Your task to perform on an android device: check out phone information Image 0: 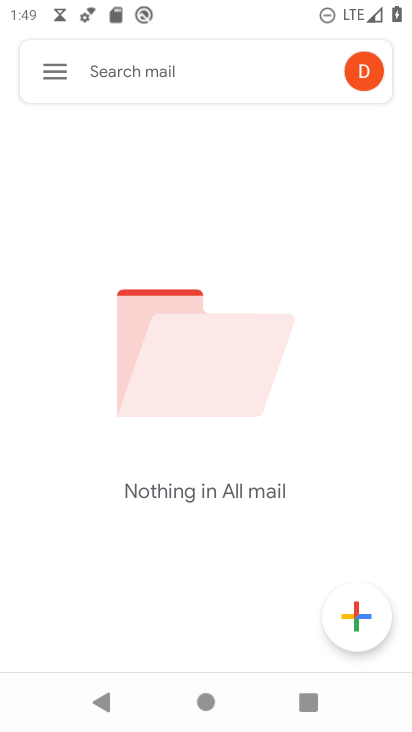
Step 0: press home button
Your task to perform on an android device: check out phone information Image 1: 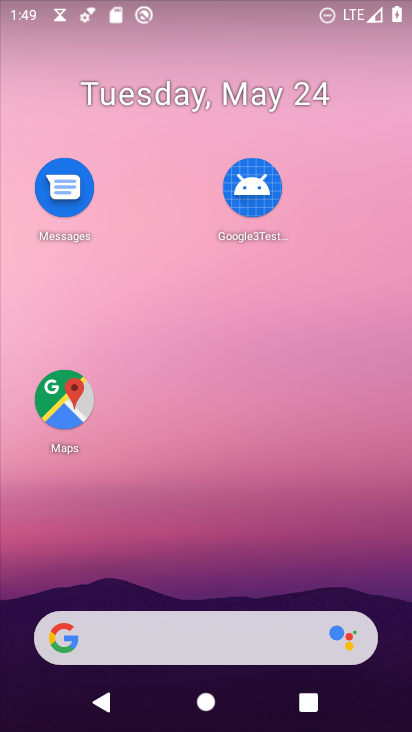
Step 1: drag from (179, 579) to (152, 1)
Your task to perform on an android device: check out phone information Image 2: 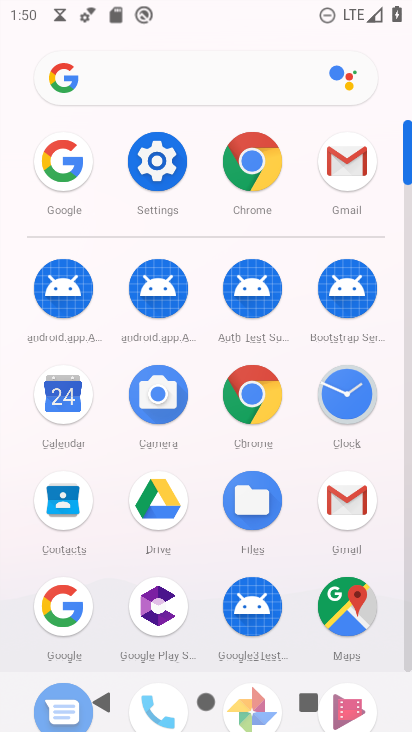
Step 2: click (159, 154)
Your task to perform on an android device: check out phone information Image 3: 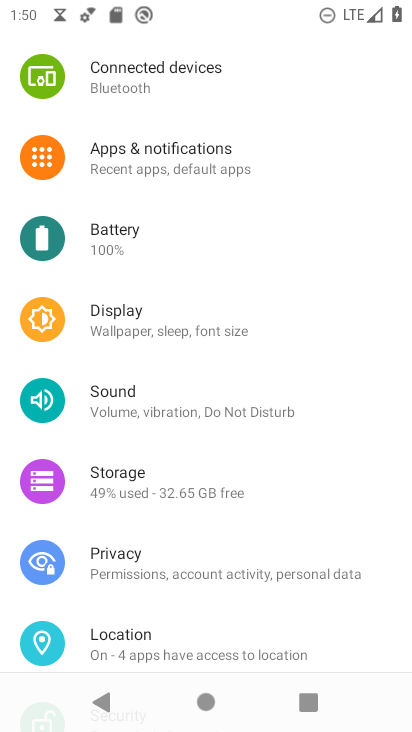
Step 3: drag from (151, 632) to (191, 41)
Your task to perform on an android device: check out phone information Image 4: 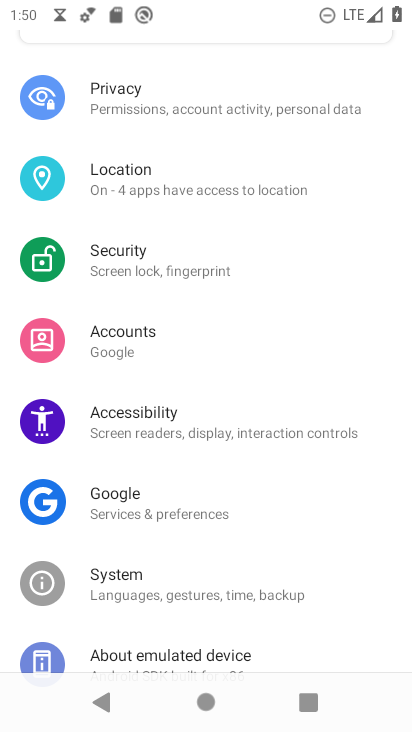
Step 4: click (166, 639)
Your task to perform on an android device: check out phone information Image 5: 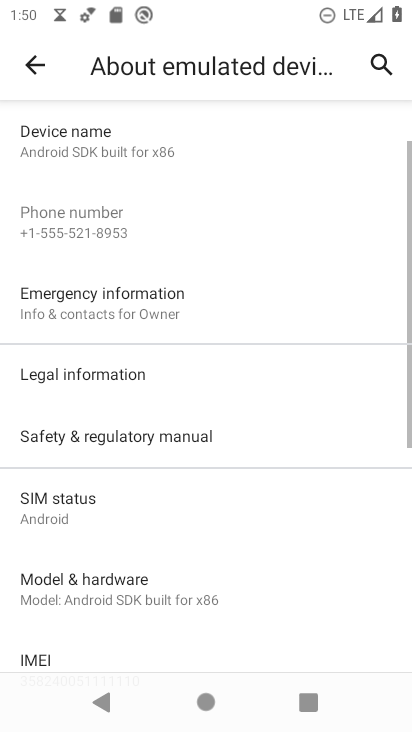
Step 5: task complete